Your task to perform on an android device: Look up the best rated headphones on Amazon. Image 0: 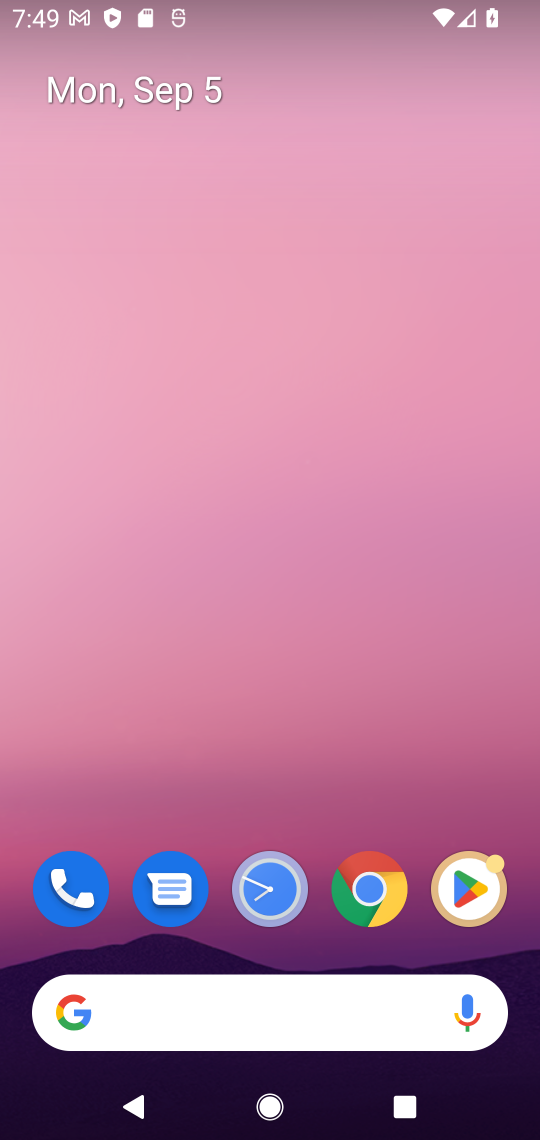
Step 0: drag from (255, 935) to (303, 131)
Your task to perform on an android device: Look up the best rated headphones on Amazon. Image 1: 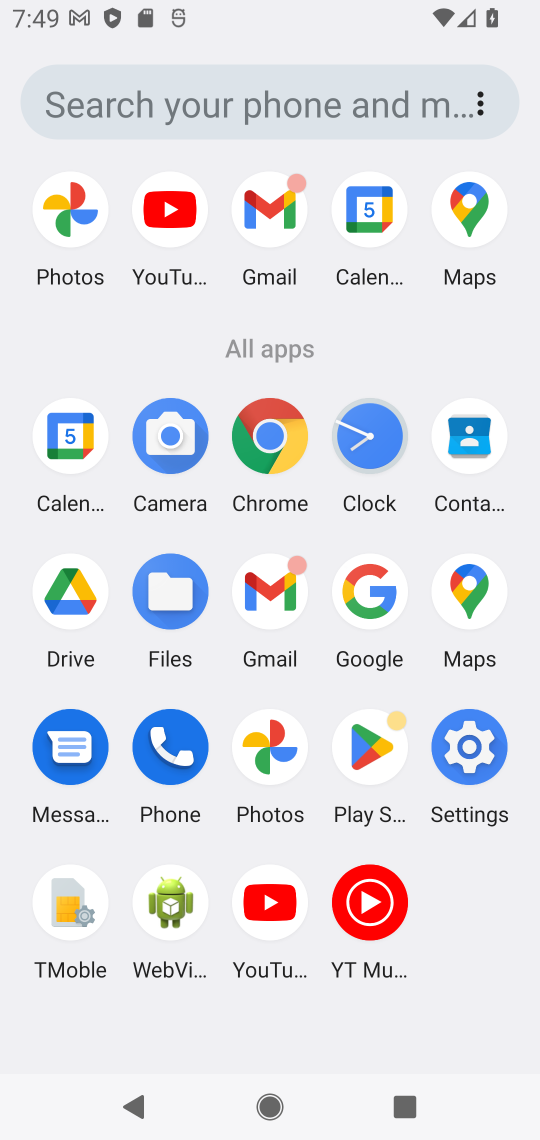
Step 1: click (373, 585)
Your task to perform on an android device: Look up the best rated headphones on Amazon. Image 2: 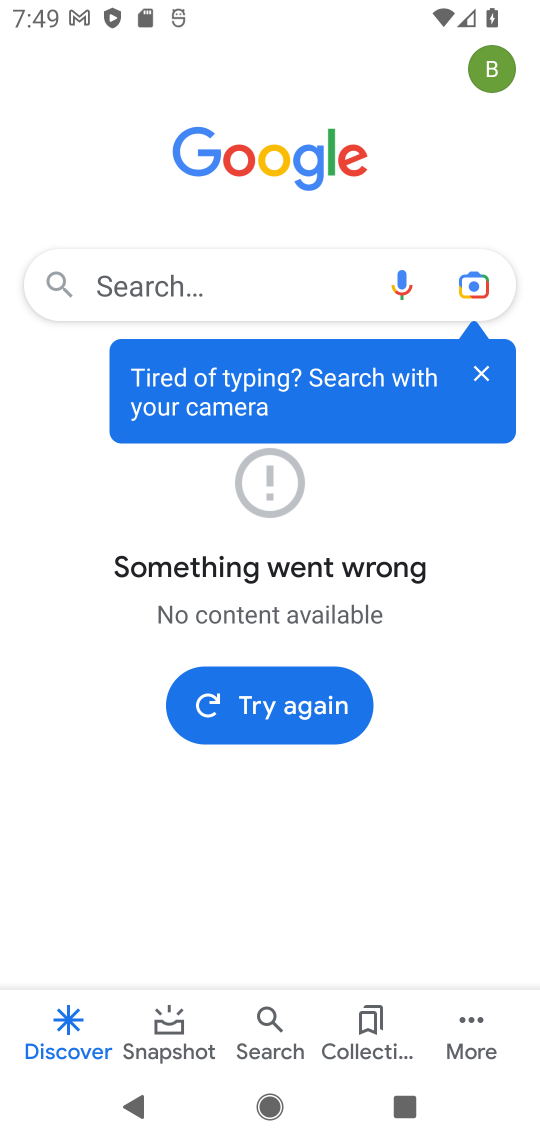
Step 2: click (373, 585)
Your task to perform on an android device: Look up the best rated headphones on Amazon. Image 3: 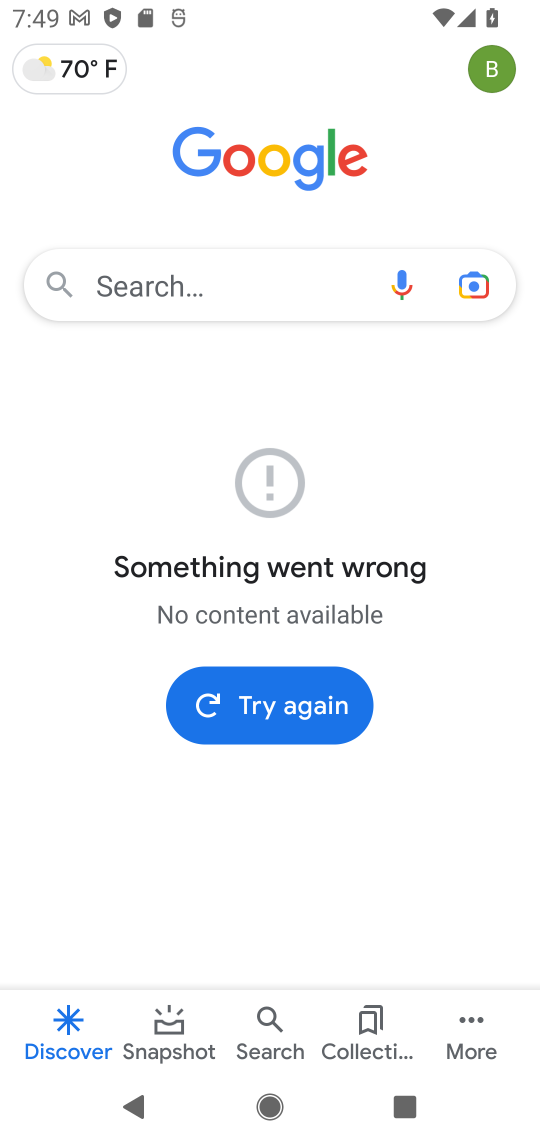
Step 3: click (185, 286)
Your task to perform on an android device: Look up the best rated headphones on Amazon. Image 4: 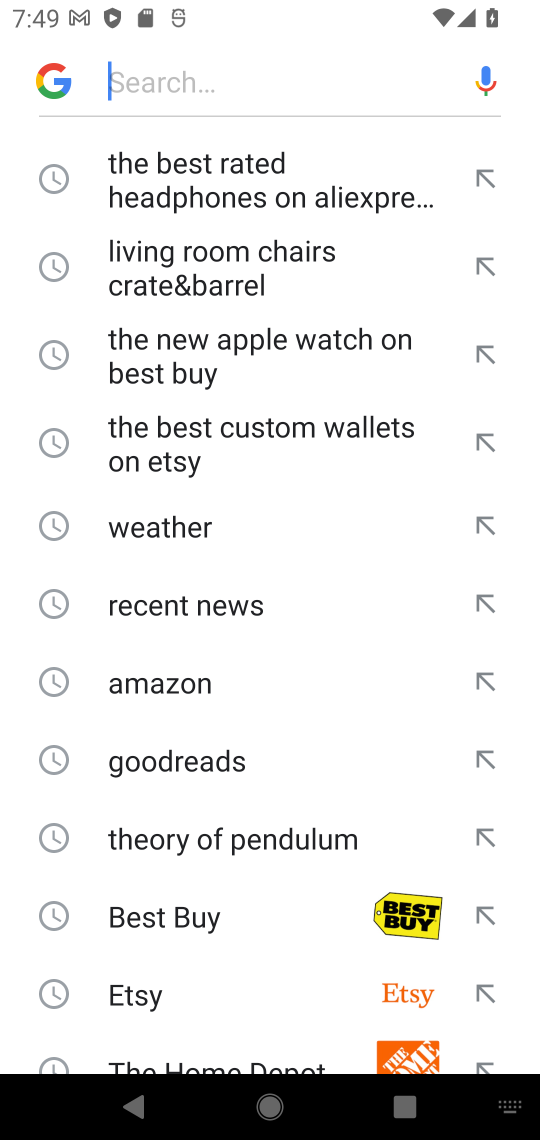
Step 4: type " the best rated headphones on Amazon."
Your task to perform on an android device: Look up the best rated headphones on Amazon. Image 5: 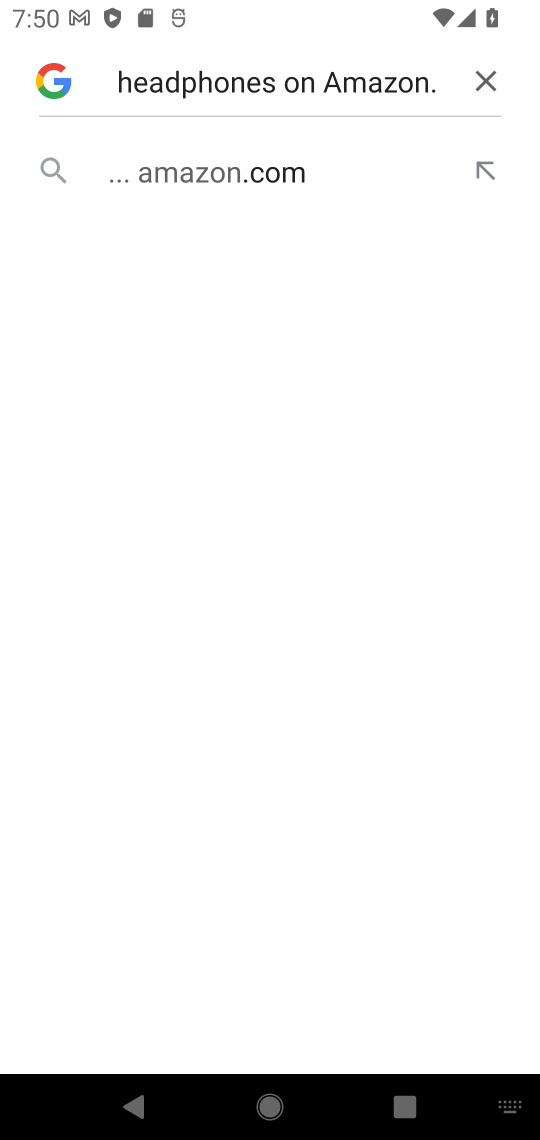
Step 5: click (206, 173)
Your task to perform on an android device: Look up the best rated headphones on Amazon. Image 6: 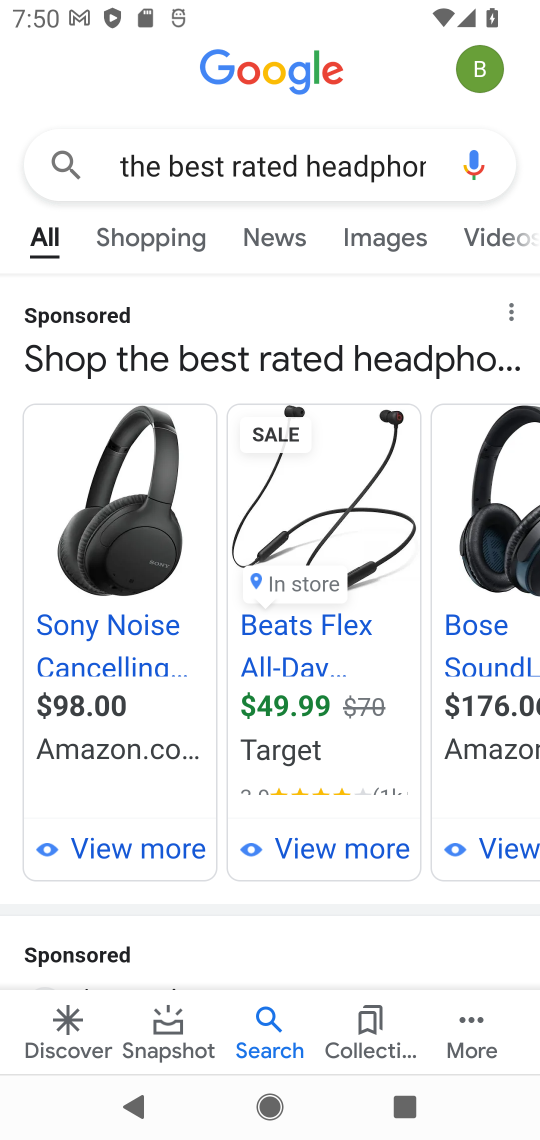
Step 6: task complete